Your task to perform on an android device: turn on the 12-hour format for clock Image 0: 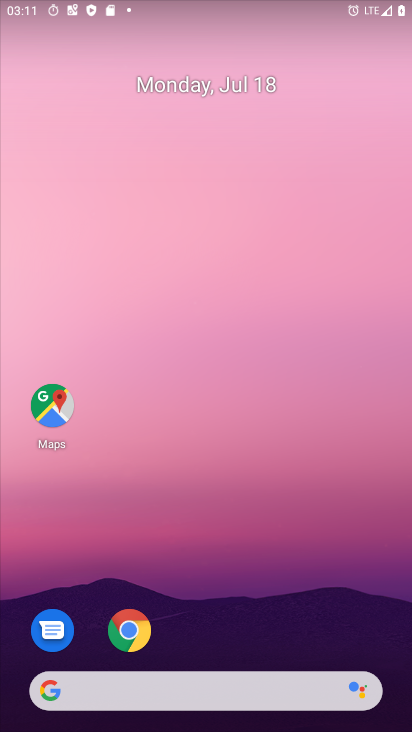
Step 0: drag from (220, 642) to (271, 121)
Your task to perform on an android device: turn on the 12-hour format for clock Image 1: 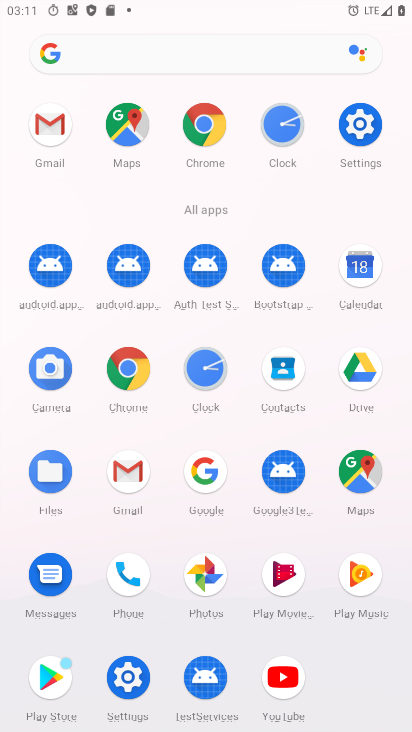
Step 1: click (285, 133)
Your task to perform on an android device: turn on the 12-hour format for clock Image 2: 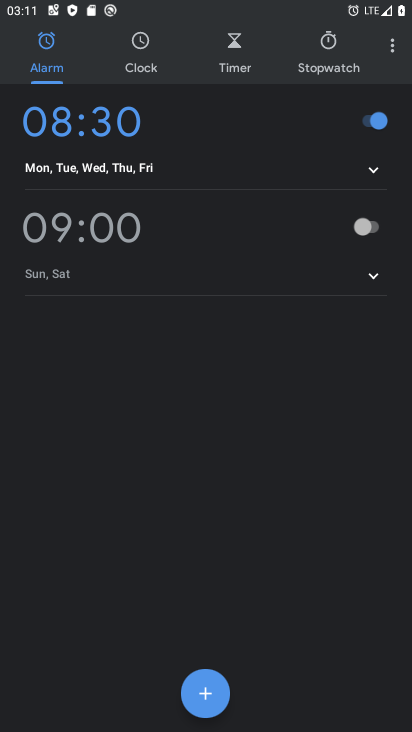
Step 2: click (404, 45)
Your task to perform on an android device: turn on the 12-hour format for clock Image 3: 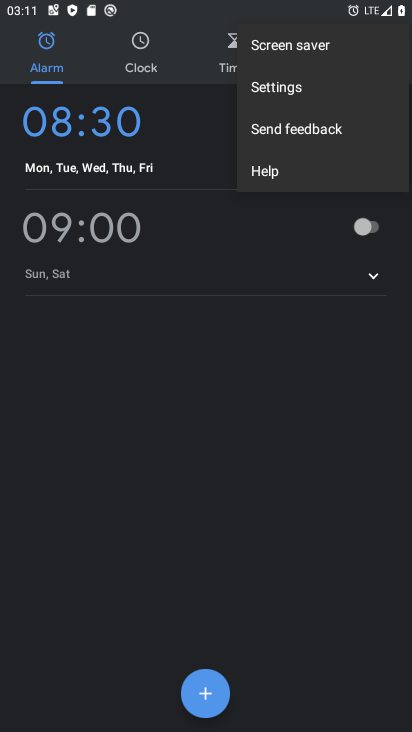
Step 3: click (318, 93)
Your task to perform on an android device: turn on the 12-hour format for clock Image 4: 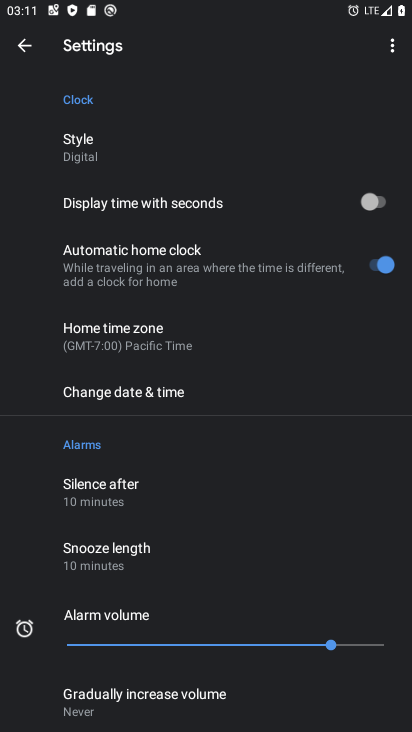
Step 4: task complete